Your task to perform on an android device: check battery use Image 0: 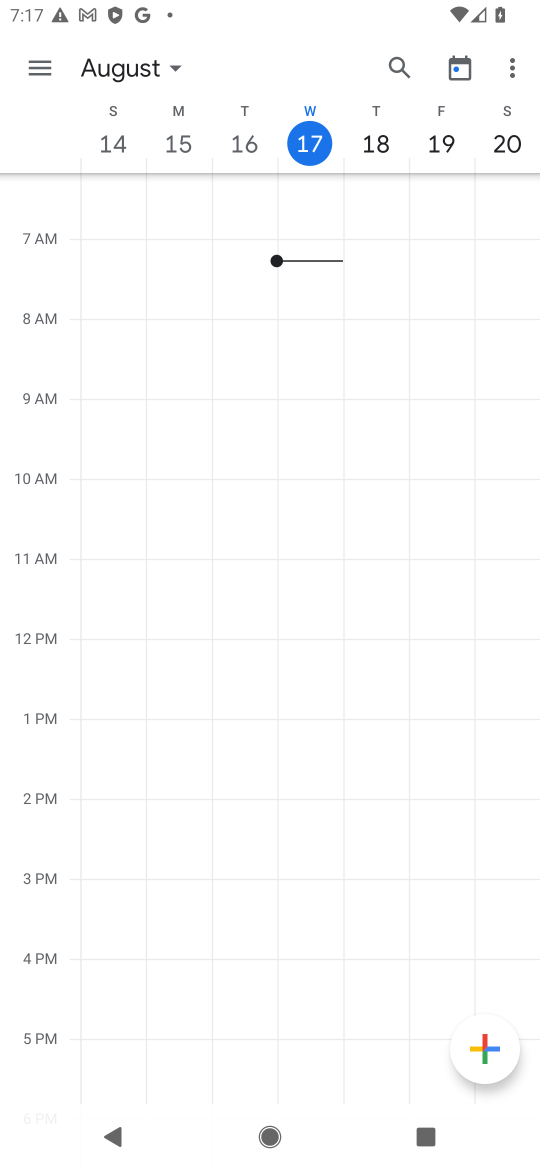
Step 0: press home button
Your task to perform on an android device: check battery use Image 1: 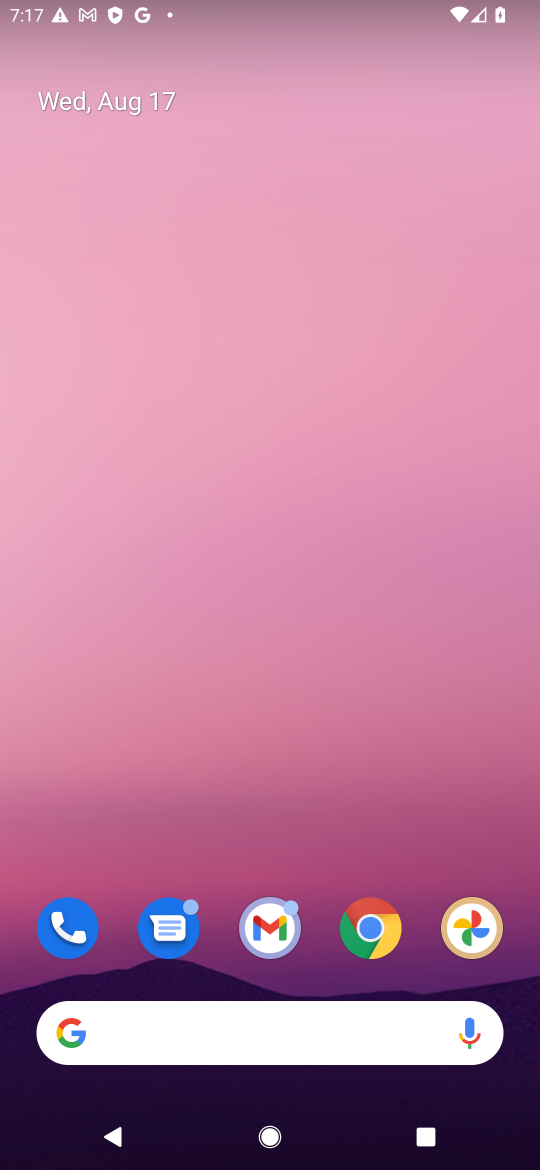
Step 1: drag from (238, 1019) to (138, 16)
Your task to perform on an android device: check battery use Image 2: 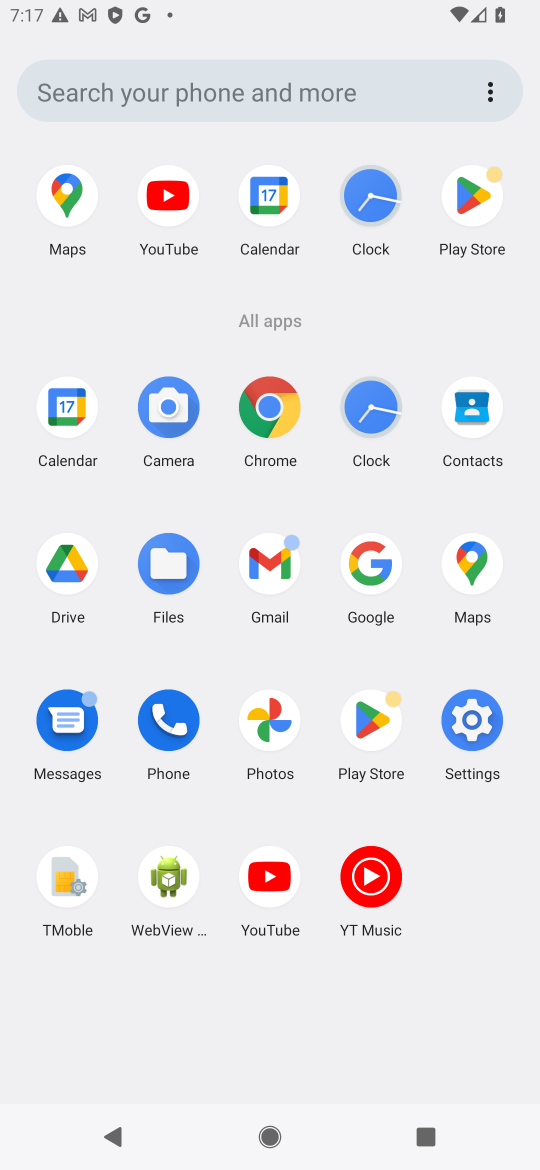
Step 2: click (462, 708)
Your task to perform on an android device: check battery use Image 3: 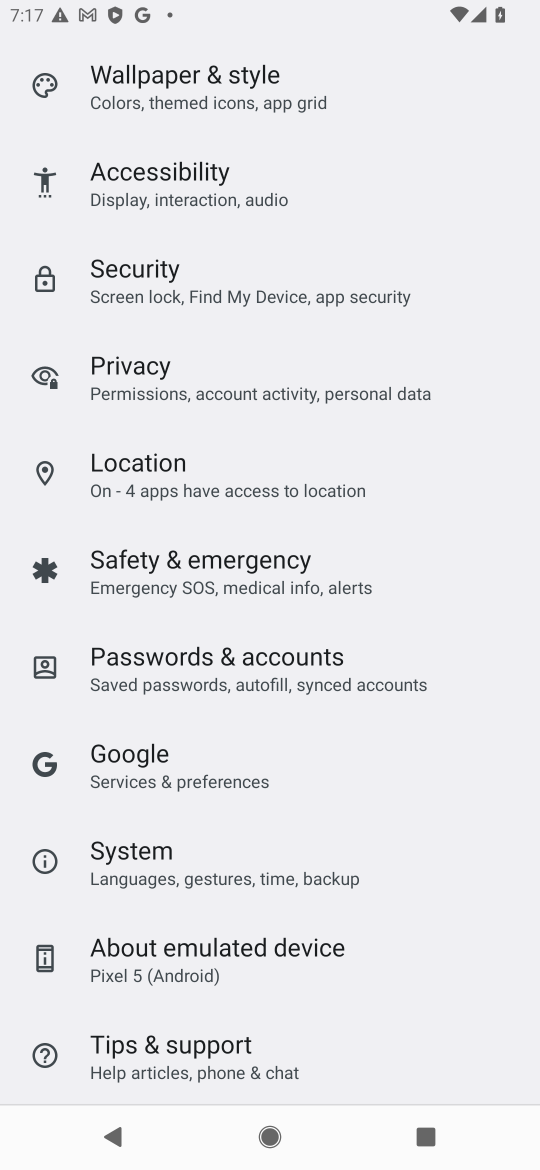
Step 3: drag from (169, 393) to (113, 1082)
Your task to perform on an android device: check battery use Image 4: 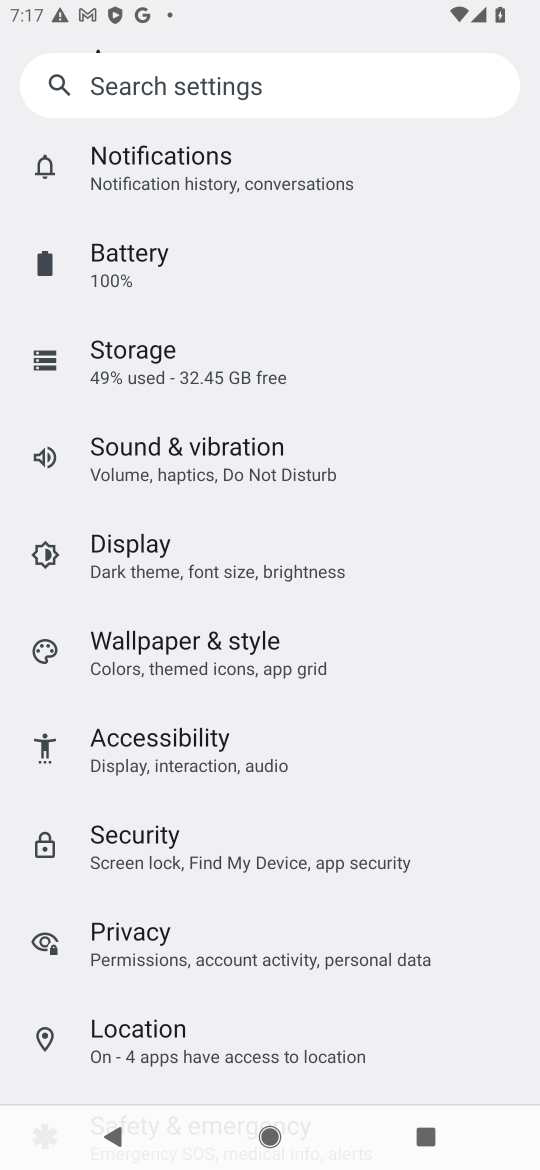
Step 4: click (167, 253)
Your task to perform on an android device: check battery use Image 5: 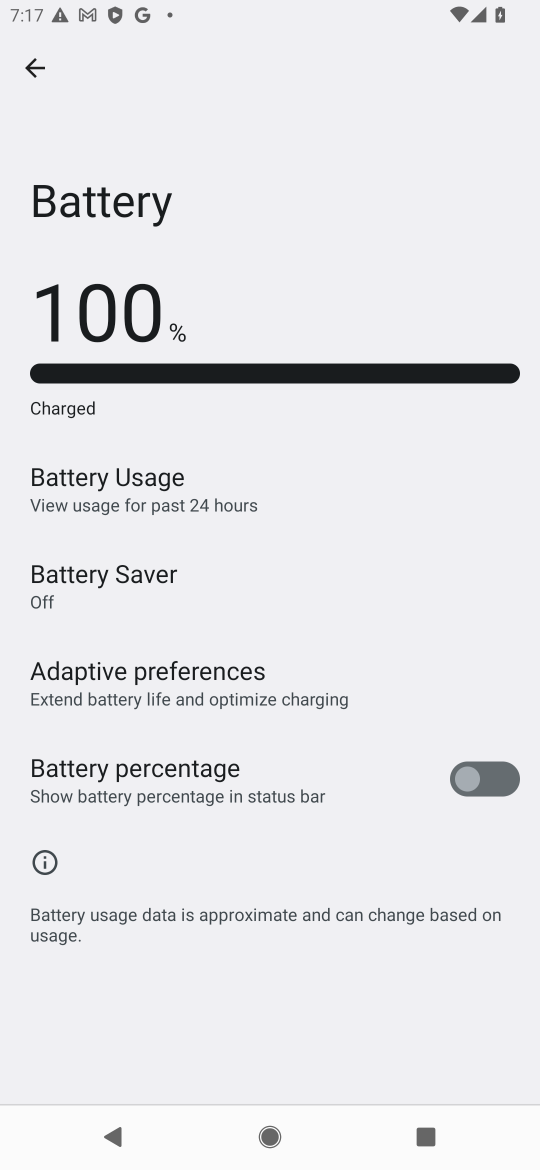
Step 5: click (195, 484)
Your task to perform on an android device: check battery use Image 6: 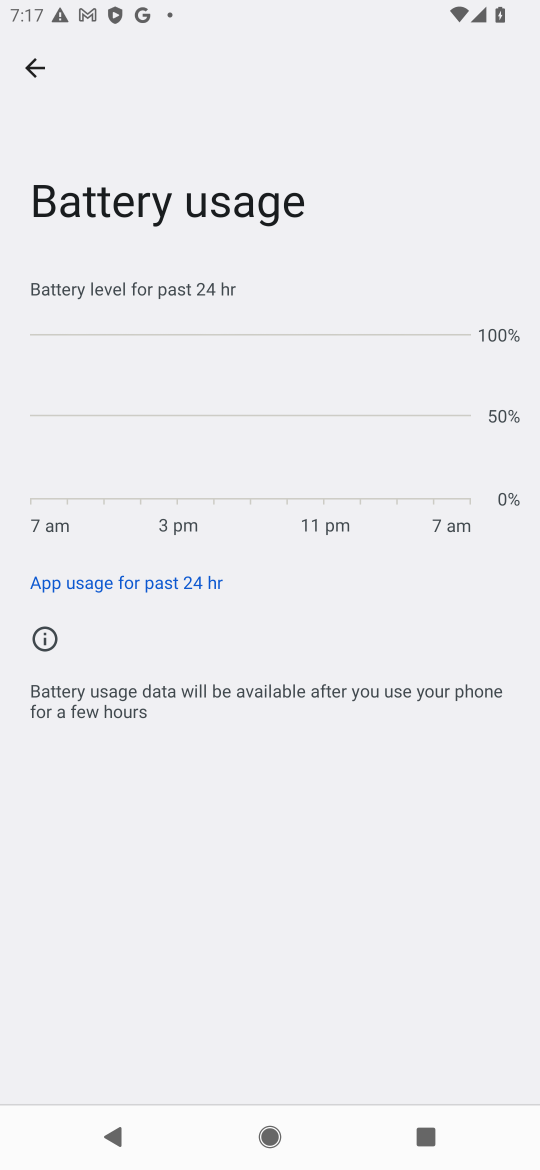
Step 6: task complete